Your task to perform on an android device: Open battery settings Image 0: 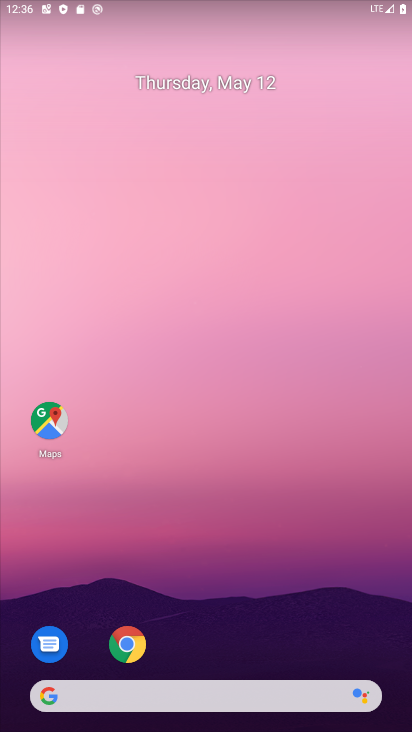
Step 0: drag from (272, 632) to (197, 109)
Your task to perform on an android device: Open battery settings Image 1: 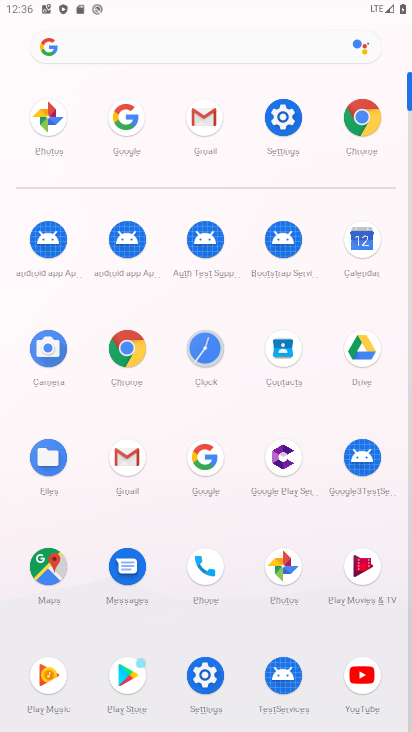
Step 1: click (282, 117)
Your task to perform on an android device: Open battery settings Image 2: 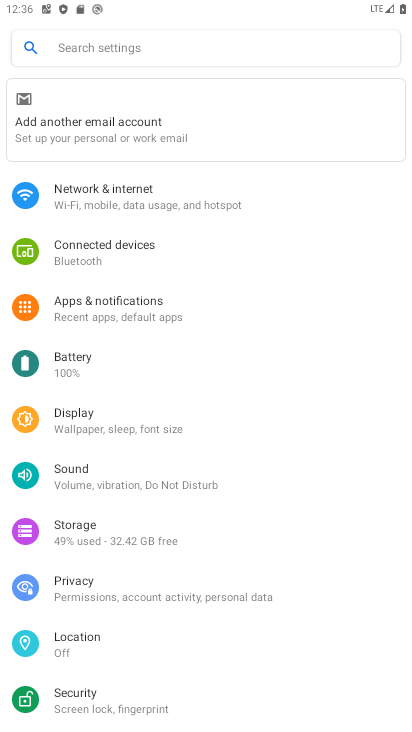
Step 2: click (145, 353)
Your task to perform on an android device: Open battery settings Image 3: 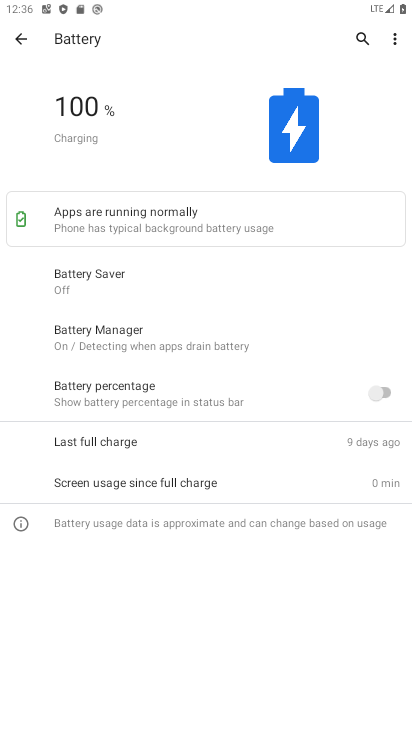
Step 3: task complete